Your task to perform on an android device: Go to ESPN.com Image 0: 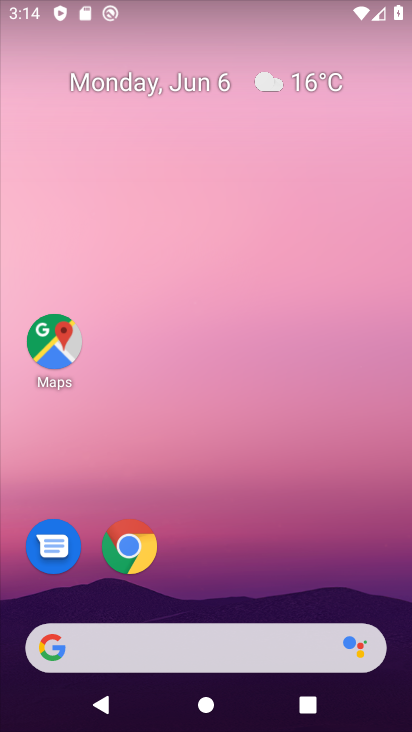
Step 0: click (197, 653)
Your task to perform on an android device: Go to ESPN.com Image 1: 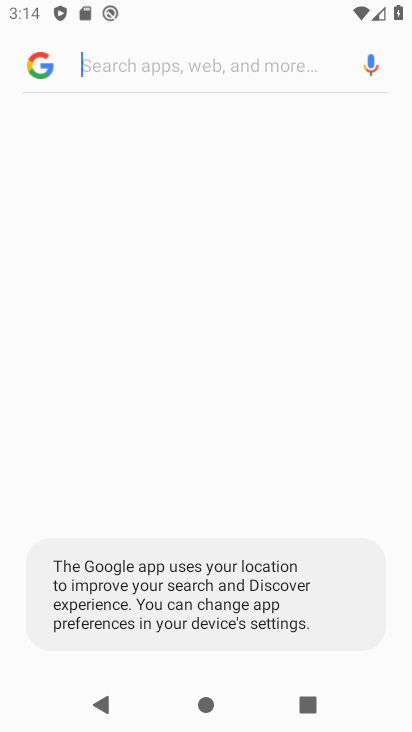
Step 1: drag from (209, 641) to (382, 193)
Your task to perform on an android device: Go to ESPN.com Image 2: 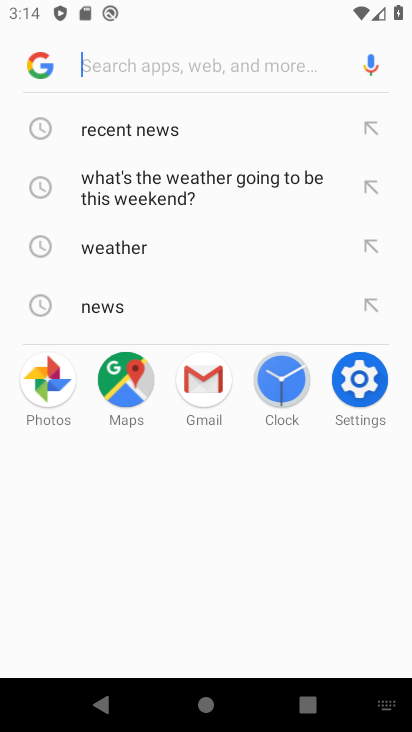
Step 2: type "ESPN.com"
Your task to perform on an android device: Go to ESPN.com Image 3: 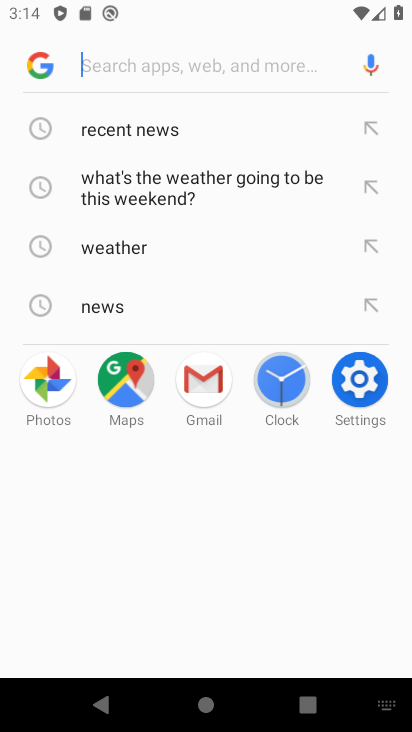
Step 3: click (181, 74)
Your task to perform on an android device: Go to ESPN.com Image 4: 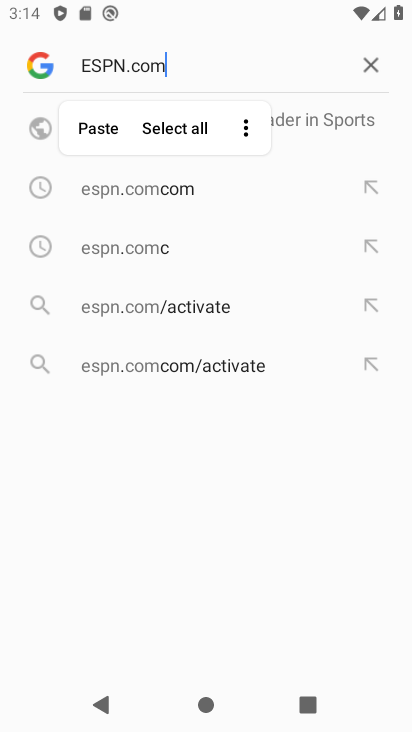
Step 4: click (292, 114)
Your task to perform on an android device: Go to ESPN.com Image 5: 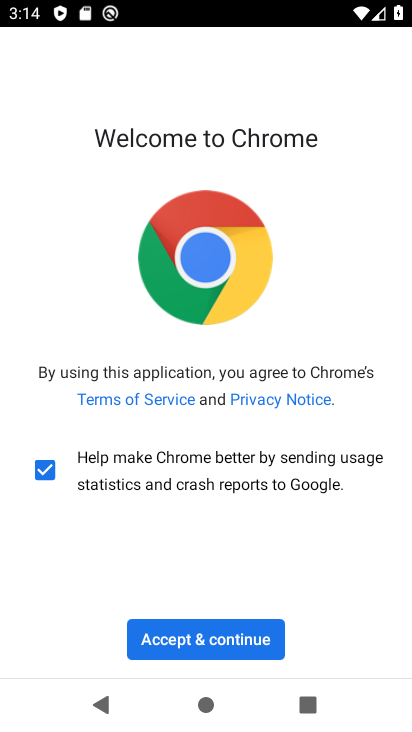
Step 5: click (205, 635)
Your task to perform on an android device: Go to ESPN.com Image 6: 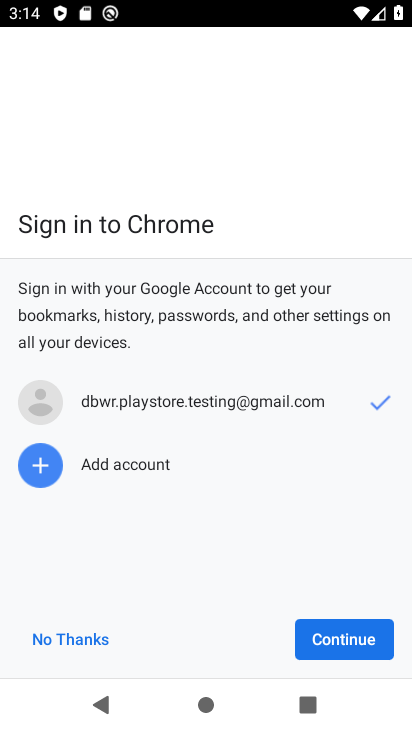
Step 6: click (328, 629)
Your task to perform on an android device: Go to ESPN.com Image 7: 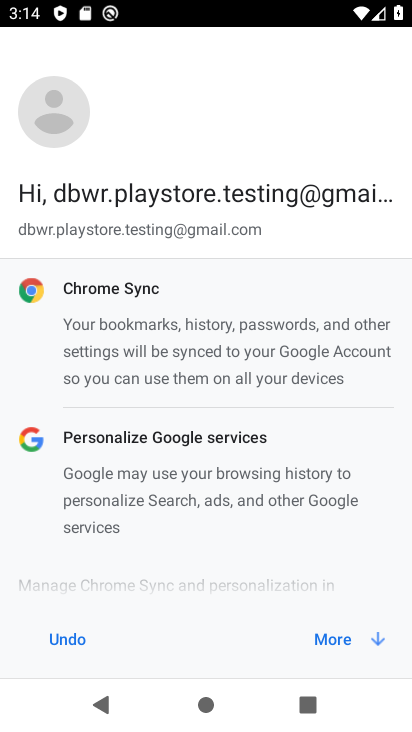
Step 7: click (328, 637)
Your task to perform on an android device: Go to ESPN.com Image 8: 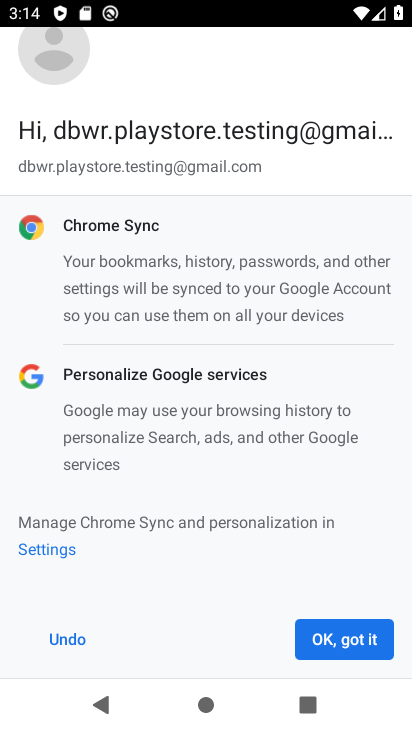
Step 8: click (329, 637)
Your task to perform on an android device: Go to ESPN.com Image 9: 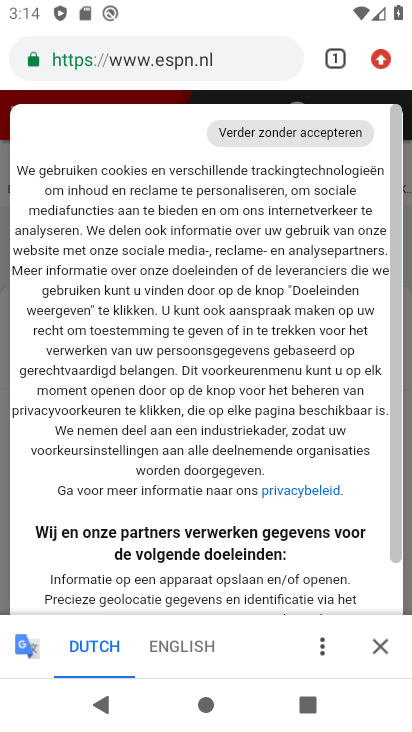
Step 9: click (174, 646)
Your task to perform on an android device: Go to ESPN.com Image 10: 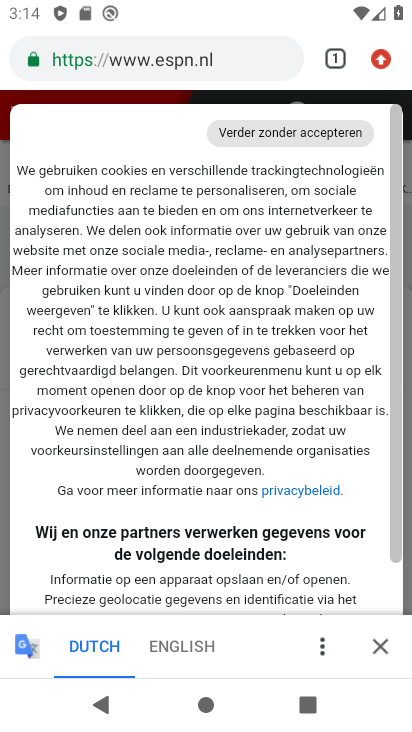
Step 10: click (385, 647)
Your task to perform on an android device: Go to ESPN.com Image 11: 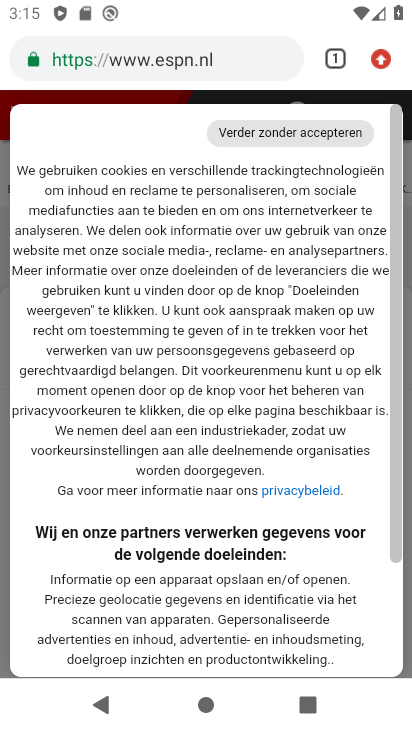
Step 11: drag from (322, 601) to (373, 214)
Your task to perform on an android device: Go to ESPN.com Image 12: 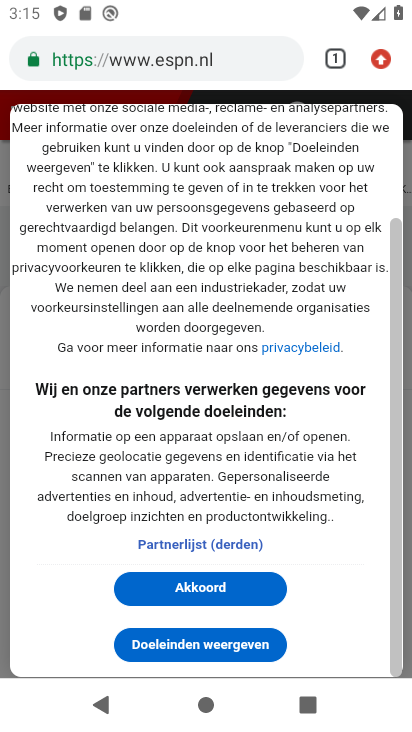
Step 12: click (235, 583)
Your task to perform on an android device: Go to ESPN.com Image 13: 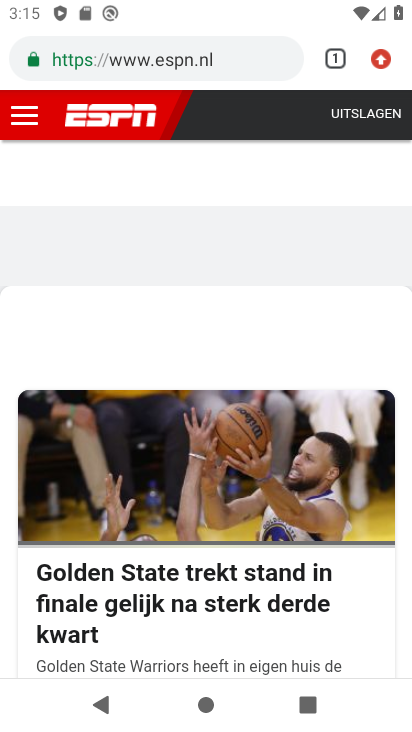
Step 13: task complete